Your task to perform on an android device: What is the news today? Image 0: 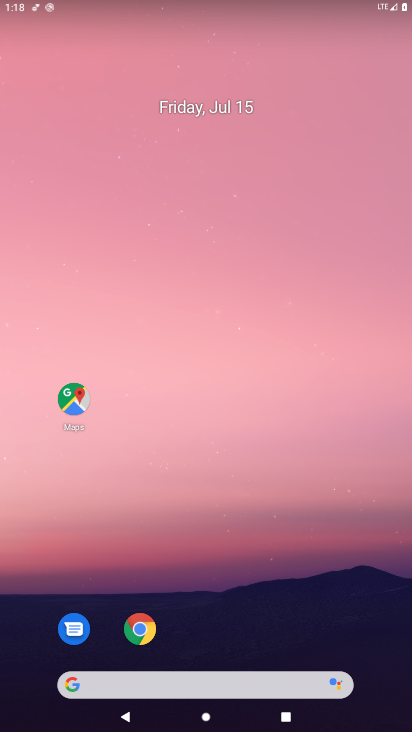
Step 0: drag from (237, 617) to (236, 184)
Your task to perform on an android device: What is the news today? Image 1: 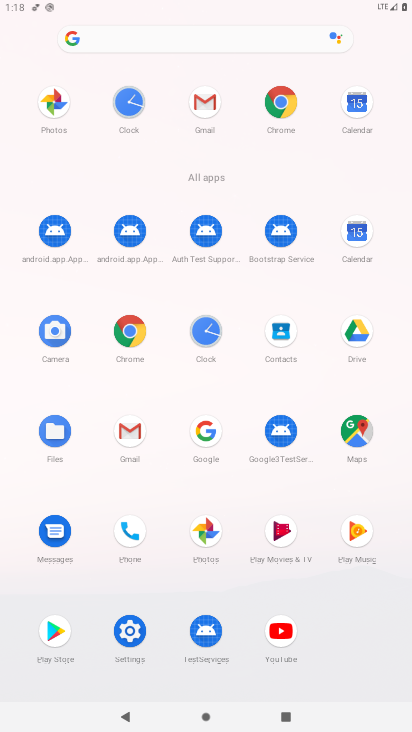
Step 1: click (280, 95)
Your task to perform on an android device: What is the news today? Image 2: 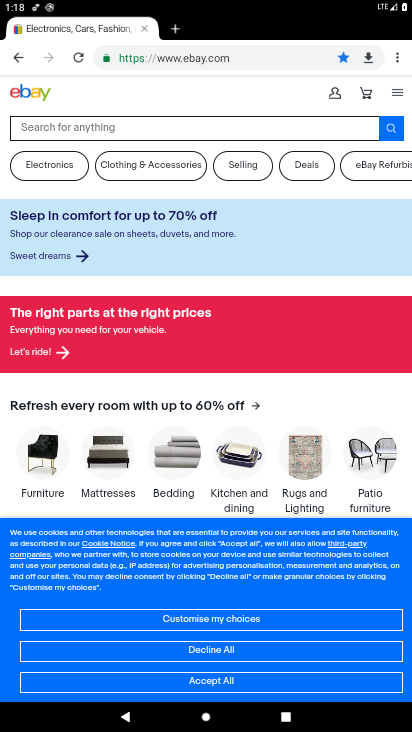
Step 2: click (190, 52)
Your task to perform on an android device: What is the news today? Image 3: 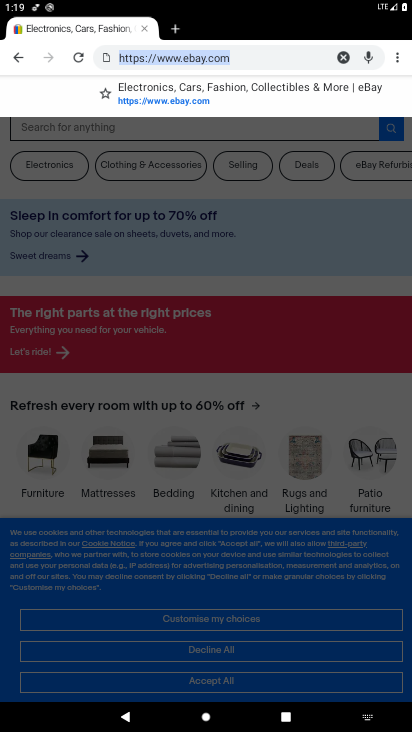
Step 3: type "what is the news today?"
Your task to perform on an android device: What is the news today? Image 4: 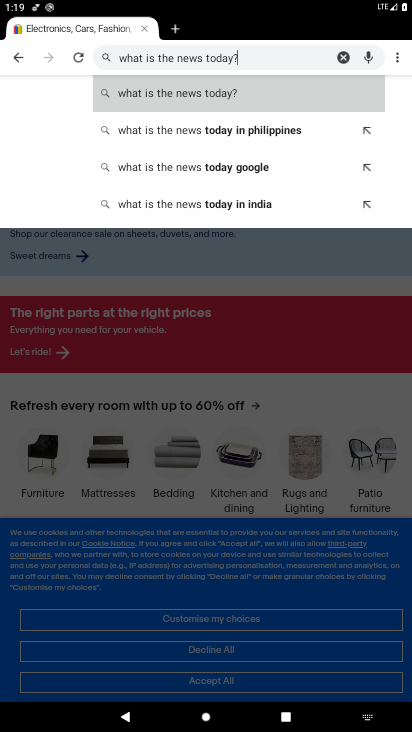
Step 4: click (156, 92)
Your task to perform on an android device: What is the news today? Image 5: 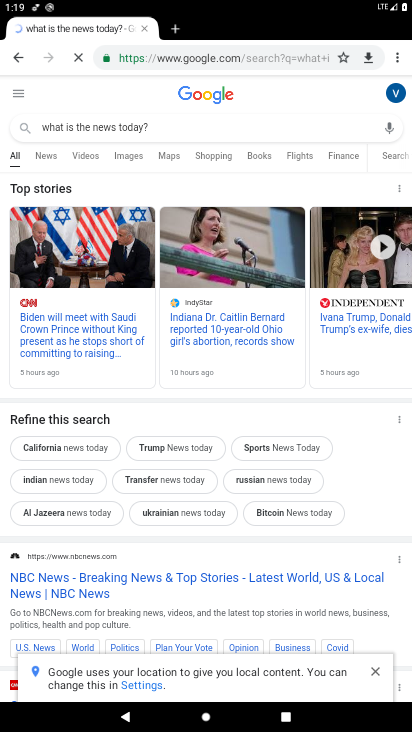
Step 5: task complete